Your task to perform on an android device: change the upload size in google photos Image 0: 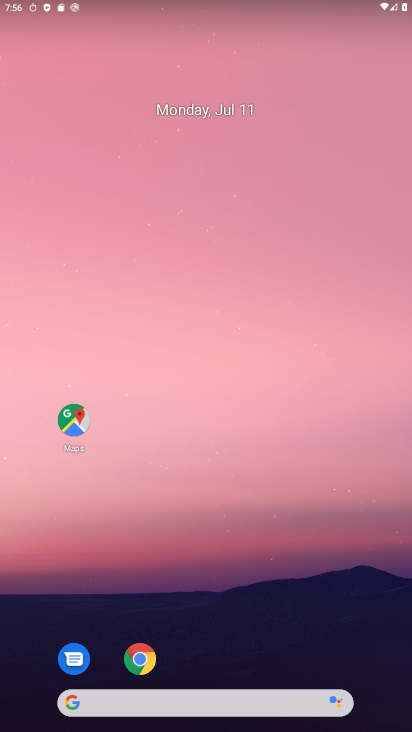
Step 0: drag from (283, 611) to (280, 37)
Your task to perform on an android device: change the upload size in google photos Image 1: 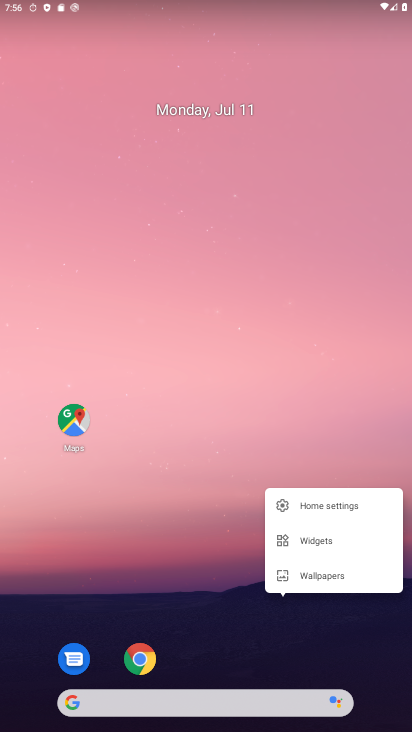
Step 1: drag from (234, 540) to (306, 532)
Your task to perform on an android device: change the upload size in google photos Image 2: 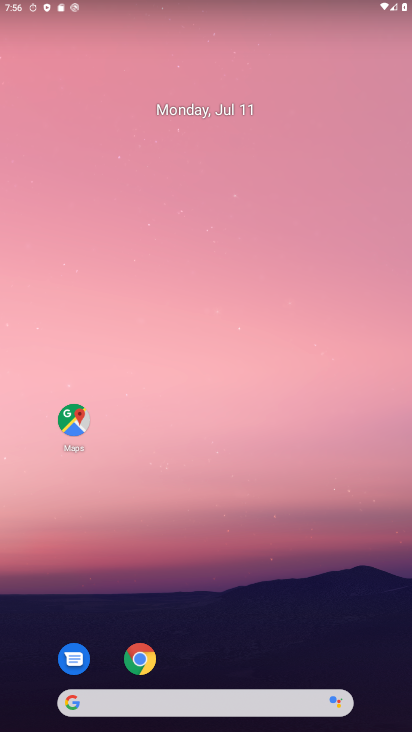
Step 2: drag from (219, 608) to (268, 82)
Your task to perform on an android device: change the upload size in google photos Image 3: 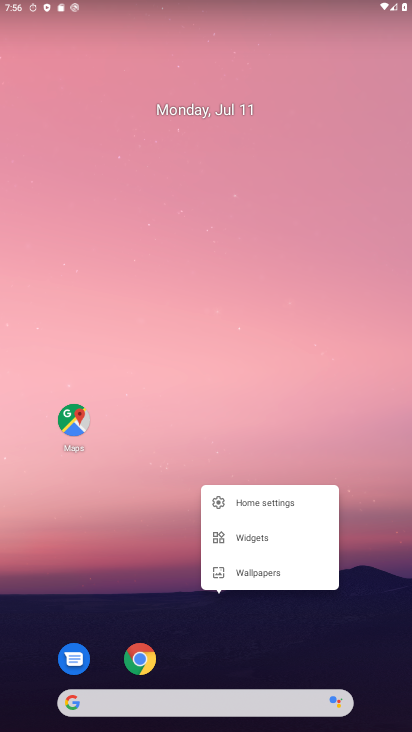
Step 3: click (332, 617)
Your task to perform on an android device: change the upload size in google photos Image 4: 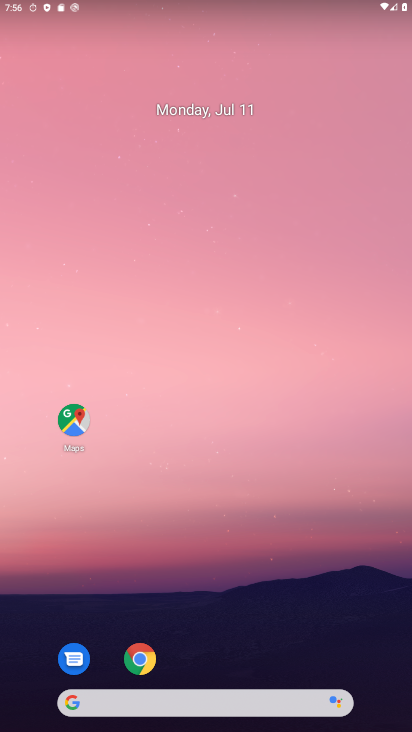
Step 4: drag from (313, 686) to (375, 85)
Your task to perform on an android device: change the upload size in google photos Image 5: 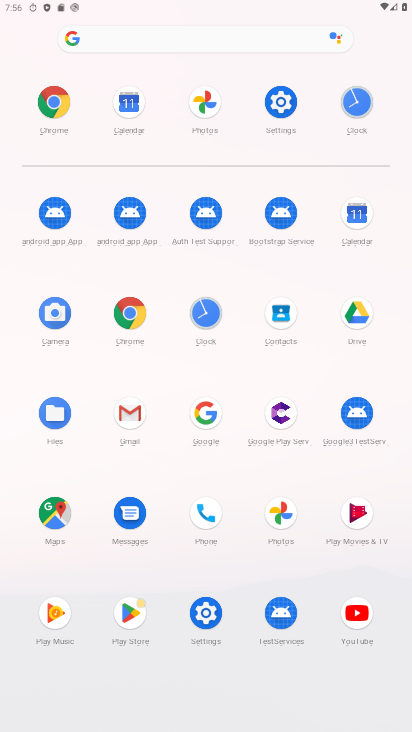
Step 5: click (200, 110)
Your task to perform on an android device: change the upload size in google photos Image 6: 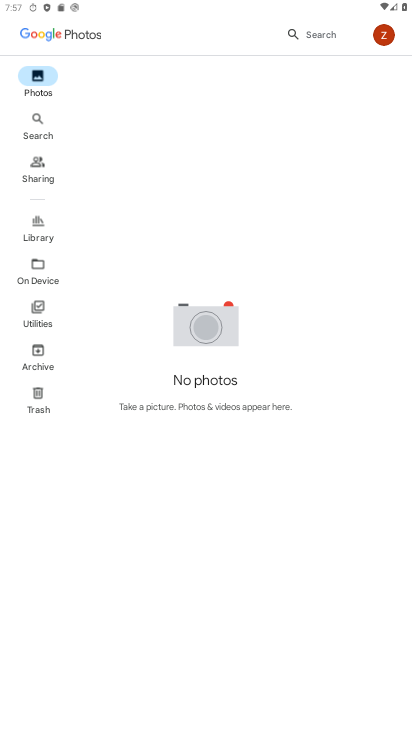
Step 6: click (386, 36)
Your task to perform on an android device: change the upload size in google photos Image 7: 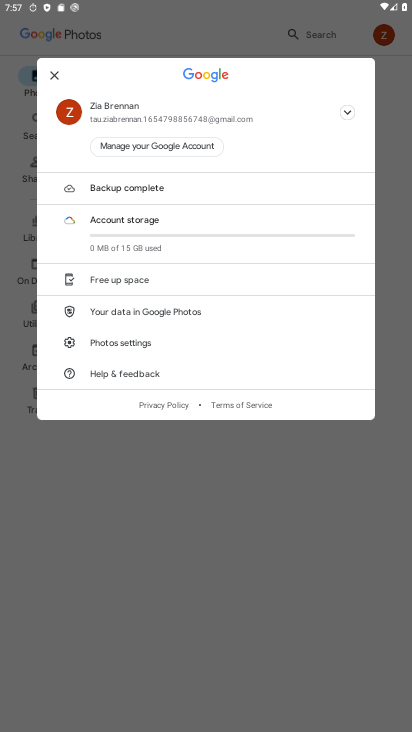
Step 7: click (118, 337)
Your task to perform on an android device: change the upload size in google photos Image 8: 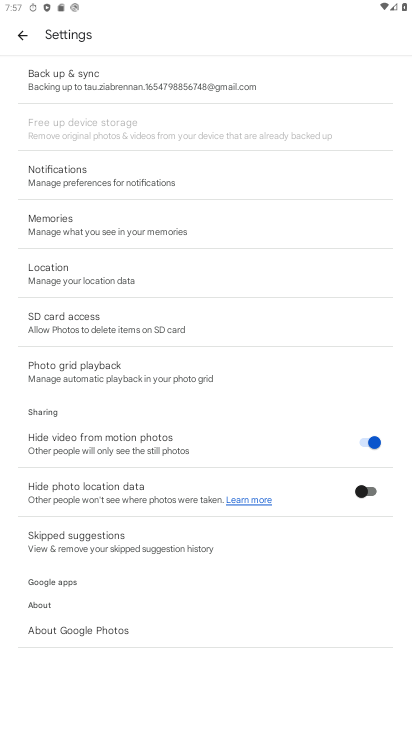
Step 8: click (106, 80)
Your task to perform on an android device: change the upload size in google photos Image 9: 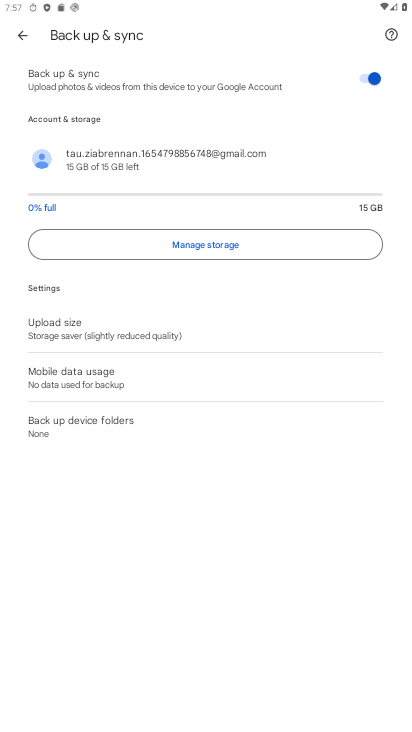
Step 9: click (102, 321)
Your task to perform on an android device: change the upload size in google photos Image 10: 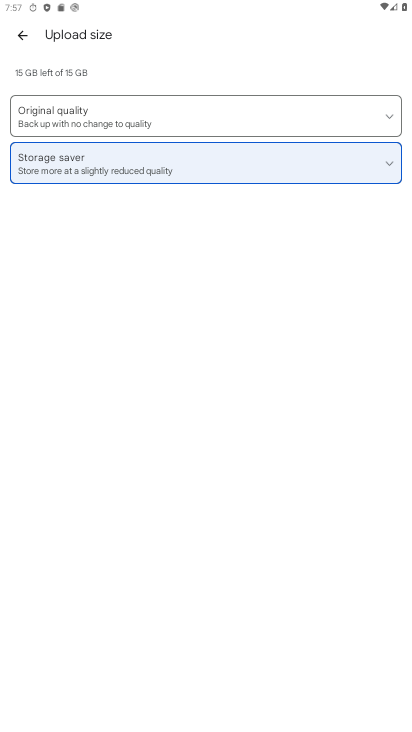
Step 10: click (144, 109)
Your task to perform on an android device: change the upload size in google photos Image 11: 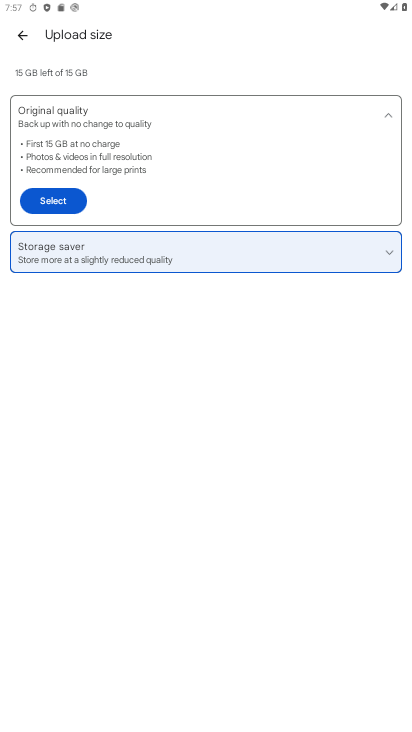
Step 11: click (69, 201)
Your task to perform on an android device: change the upload size in google photos Image 12: 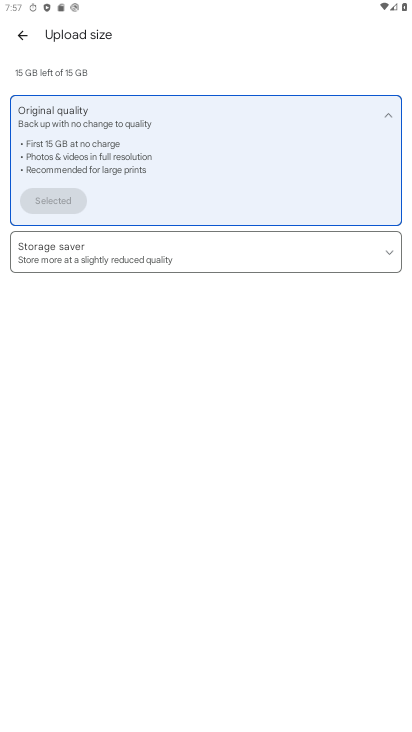
Step 12: task complete